Your task to perform on an android device: change alarm snooze length Image 0: 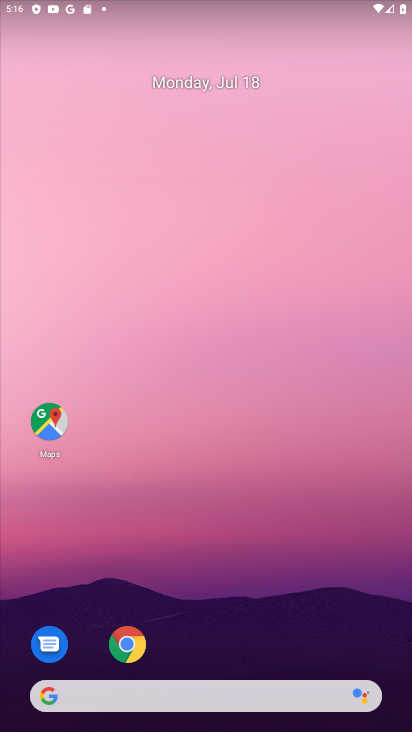
Step 0: press home button
Your task to perform on an android device: change alarm snooze length Image 1: 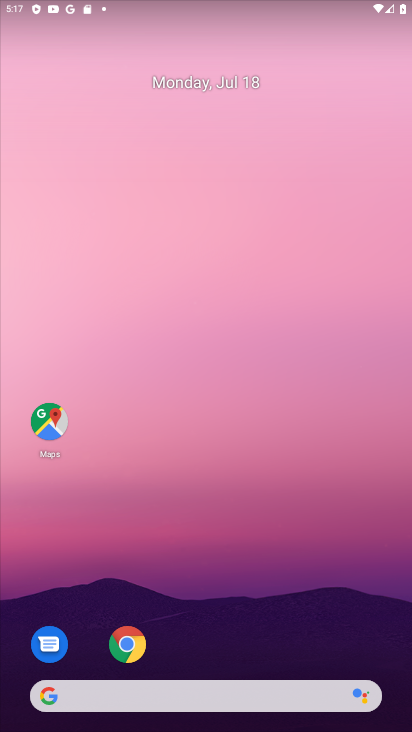
Step 1: press home button
Your task to perform on an android device: change alarm snooze length Image 2: 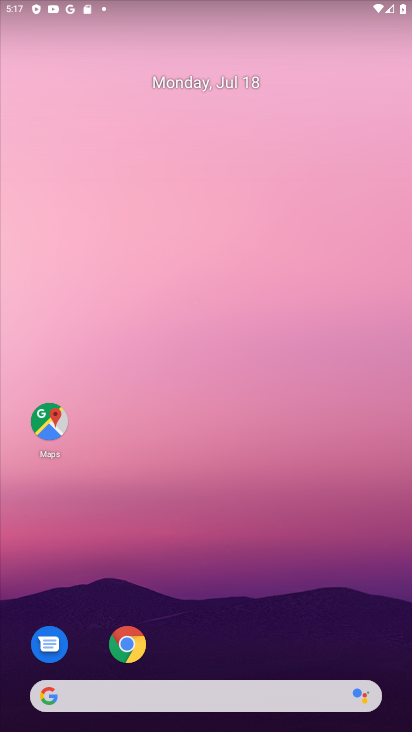
Step 2: drag from (303, 567) to (258, 160)
Your task to perform on an android device: change alarm snooze length Image 3: 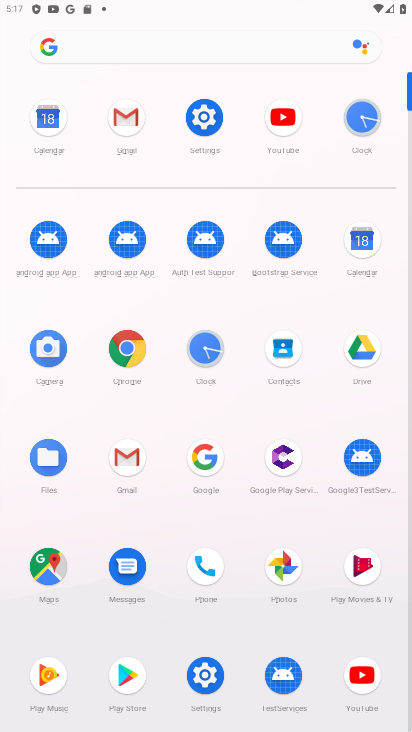
Step 3: click (206, 354)
Your task to perform on an android device: change alarm snooze length Image 4: 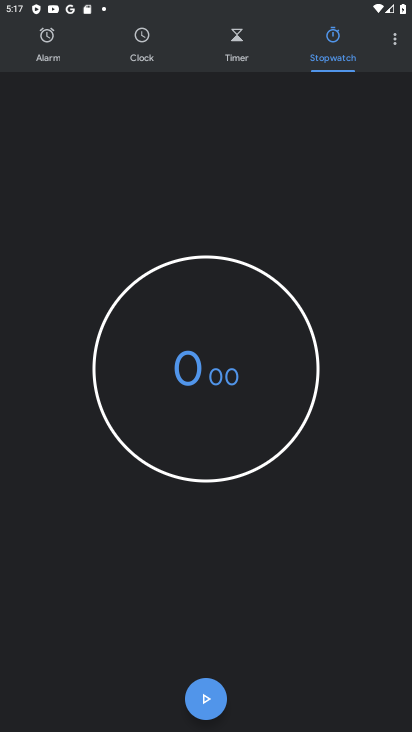
Step 4: click (392, 40)
Your task to perform on an android device: change alarm snooze length Image 5: 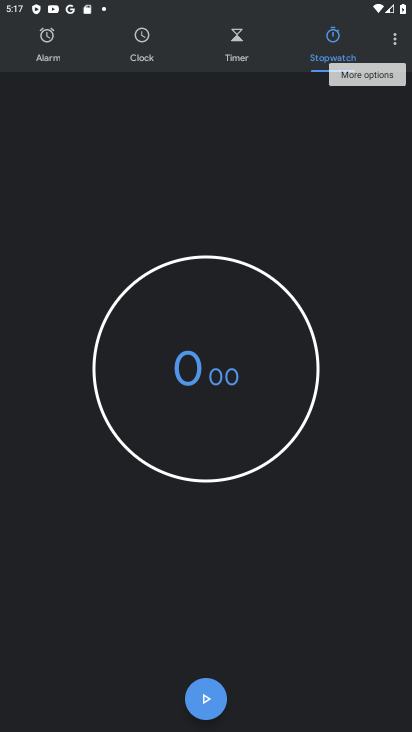
Step 5: click (387, 40)
Your task to perform on an android device: change alarm snooze length Image 6: 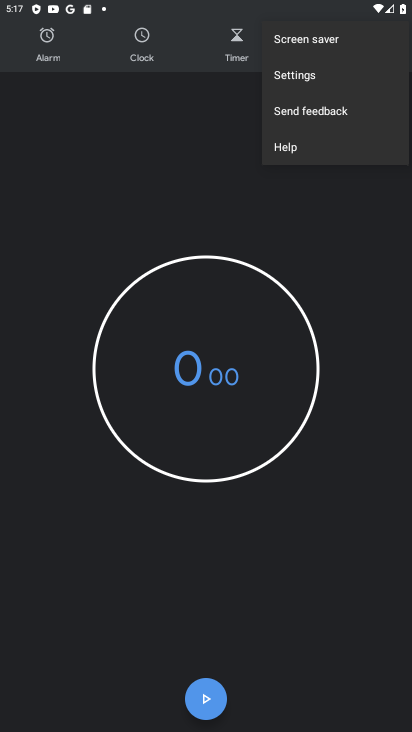
Step 6: click (304, 79)
Your task to perform on an android device: change alarm snooze length Image 7: 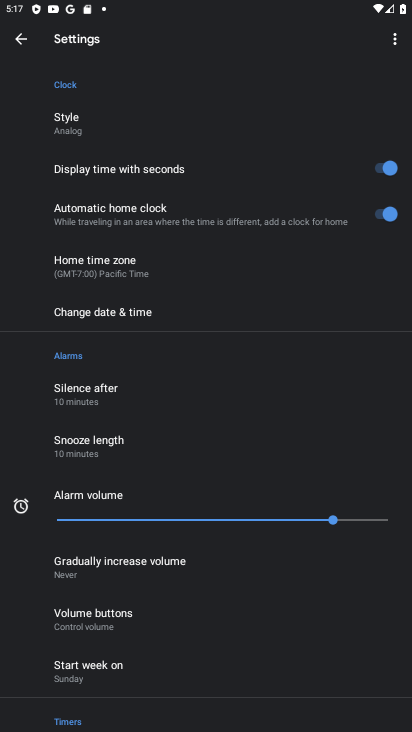
Step 7: click (81, 437)
Your task to perform on an android device: change alarm snooze length Image 8: 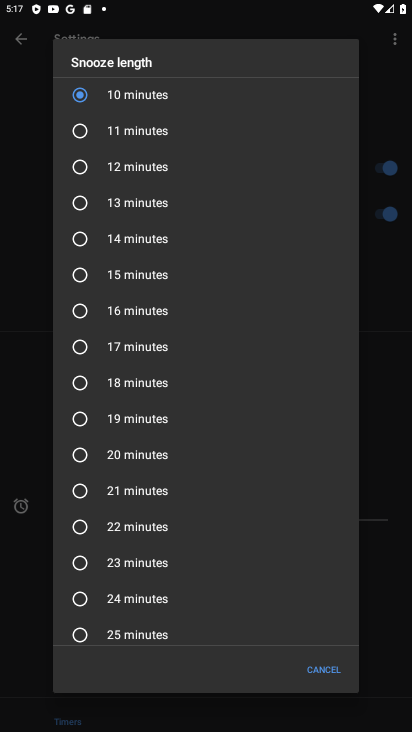
Step 8: click (73, 316)
Your task to perform on an android device: change alarm snooze length Image 9: 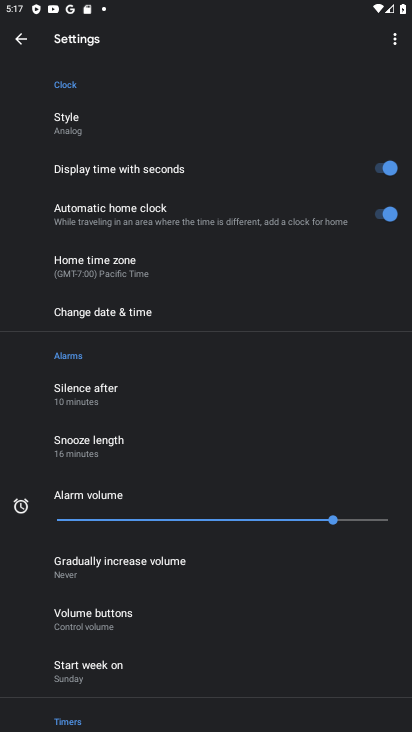
Step 9: task complete